Your task to perform on an android device: open a new tab in the chrome app Image 0: 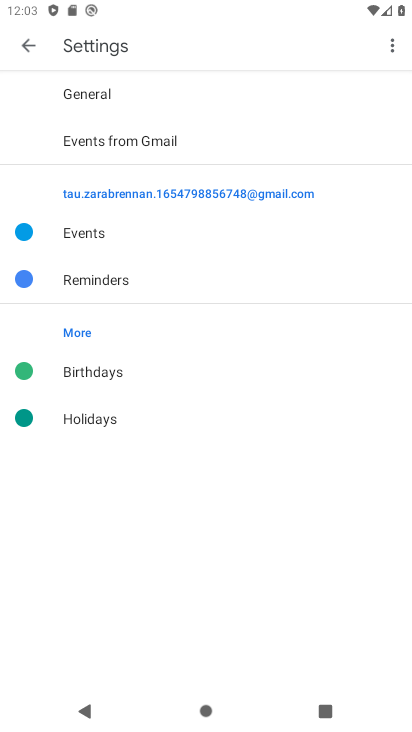
Step 0: press home button
Your task to perform on an android device: open a new tab in the chrome app Image 1: 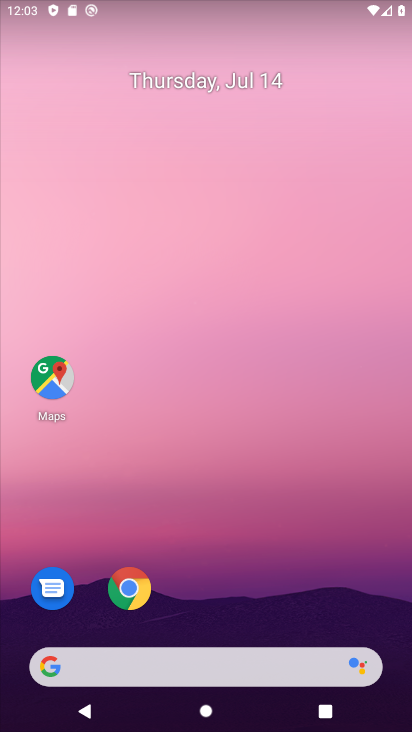
Step 1: click (129, 572)
Your task to perform on an android device: open a new tab in the chrome app Image 2: 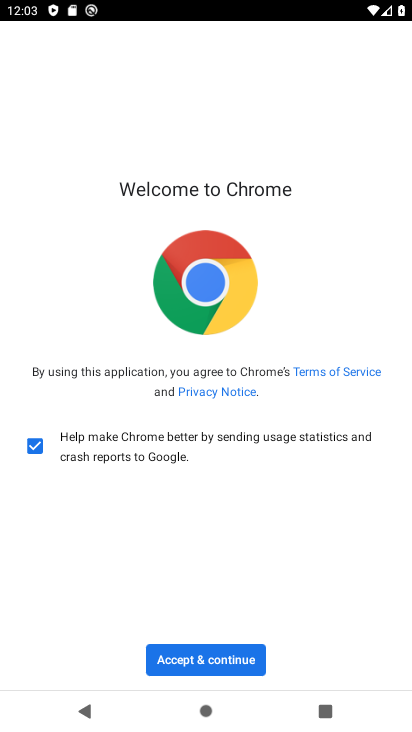
Step 2: click (227, 653)
Your task to perform on an android device: open a new tab in the chrome app Image 3: 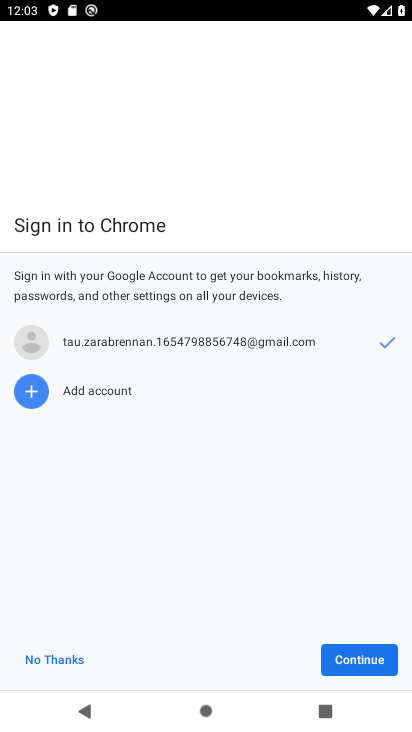
Step 3: click (363, 666)
Your task to perform on an android device: open a new tab in the chrome app Image 4: 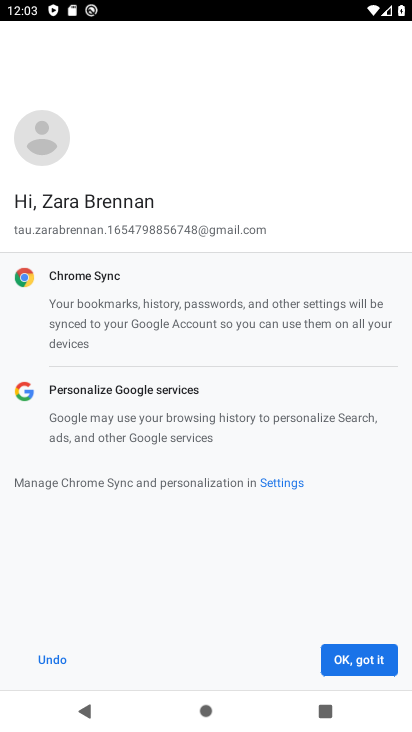
Step 4: click (363, 666)
Your task to perform on an android device: open a new tab in the chrome app Image 5: 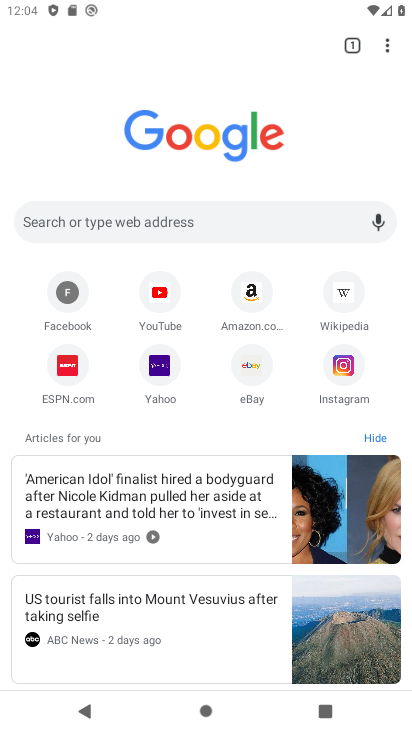
Step 5: click (352, 46)
Your task to perform on an android device: open a new tab in the chrome app Image 6: 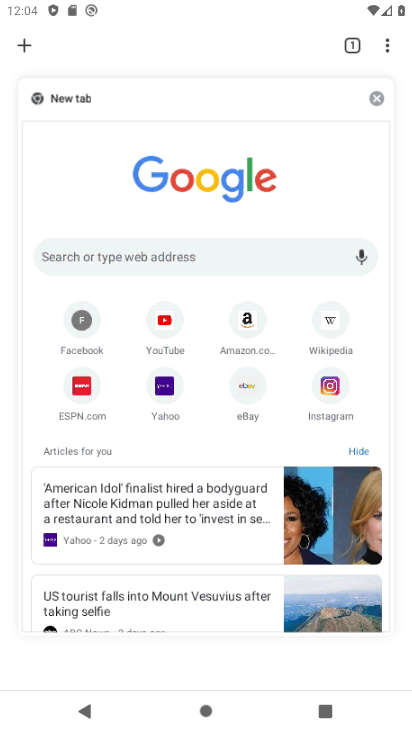
Step 6: click (21, 52)
Your task to perform on an android device: open a new tab in the chrome app Image 7: 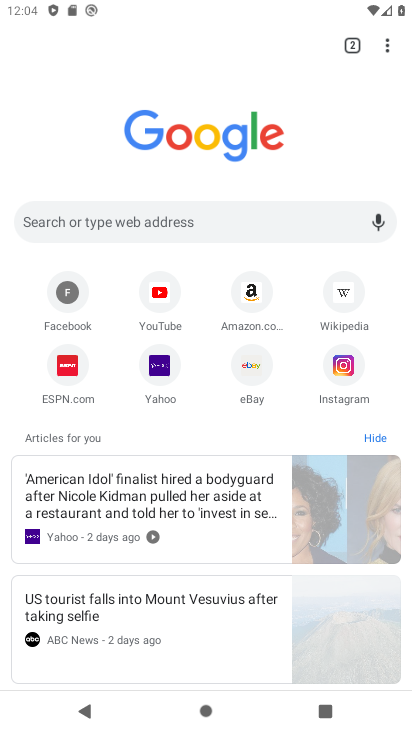
Step 7: task complete